Your task to perform on an android device: open a bookmark in the chrome app Image 0: 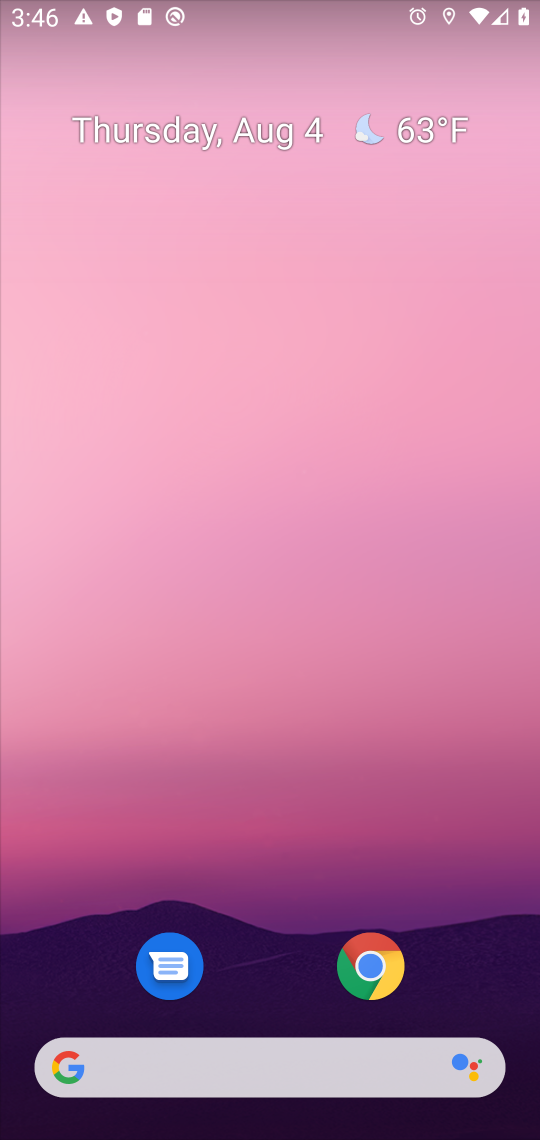
Step 0: click (369, 975)
Your task to perform on an android device: open a bookmark in the chrome app Image 1: 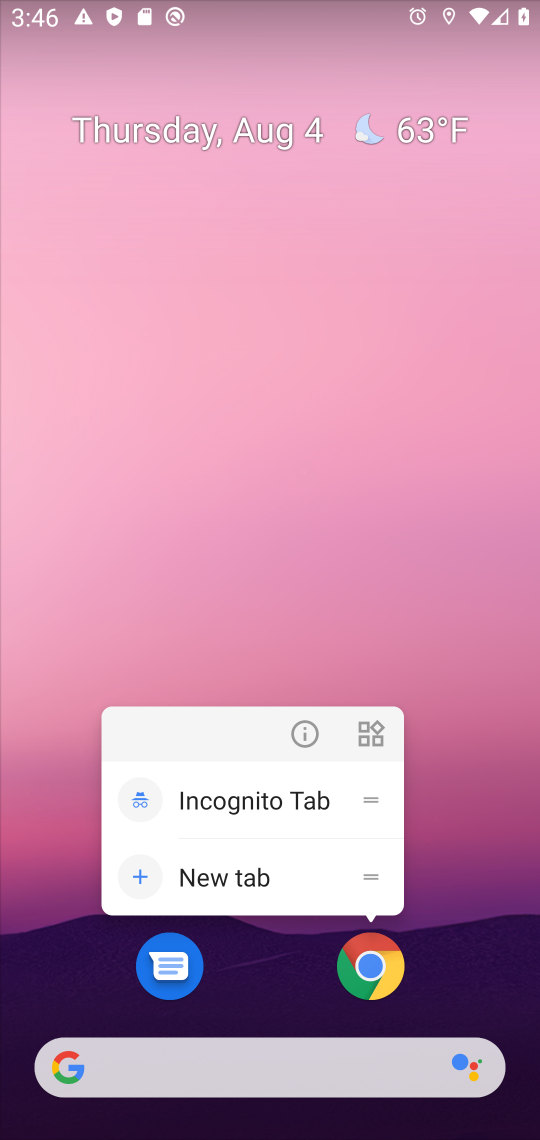
Step 1: click (369, 975)
Your task to perform on an android device: open a bookmark in the chrome app Image 2: 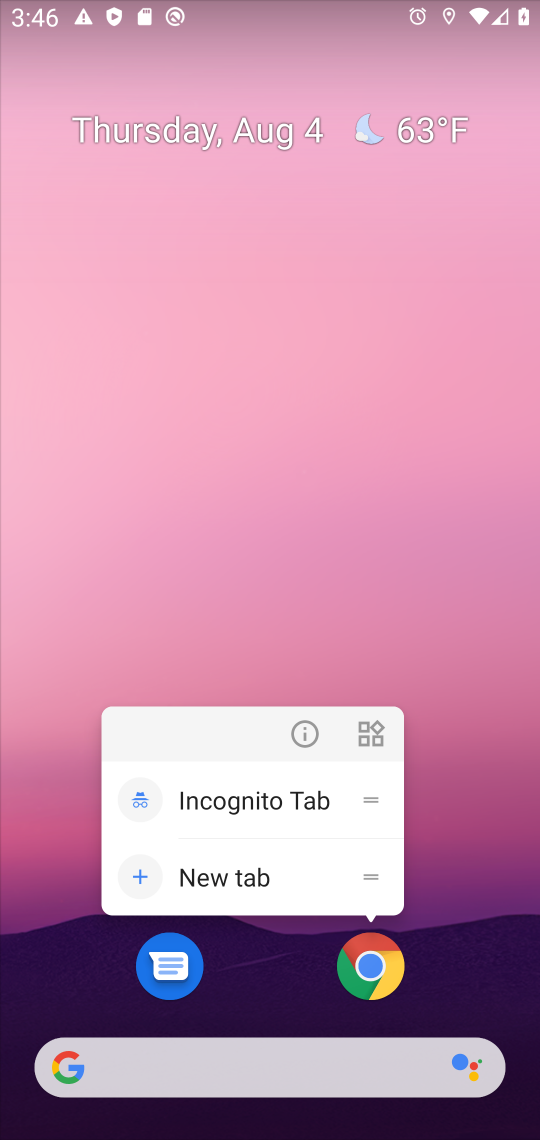
Step 2: click (389, 986)
Your task to perform on an android device: open a bookmark in the chrome app Image 3: 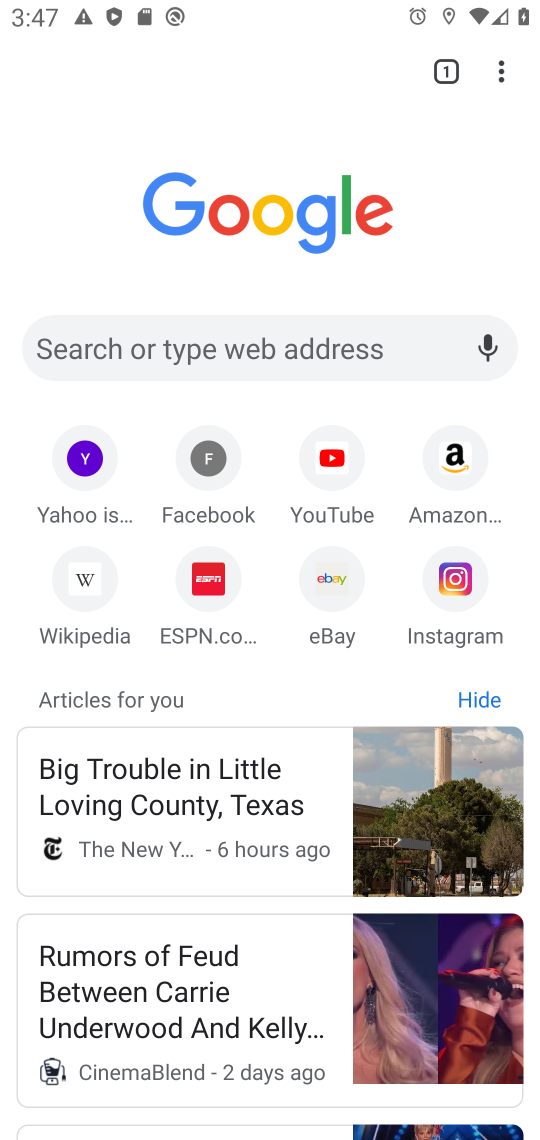
Step 3: drag from (502, 65) to (310, 281)
Your task to perform on an android device: open a bookmark in the chrome app Image 4: 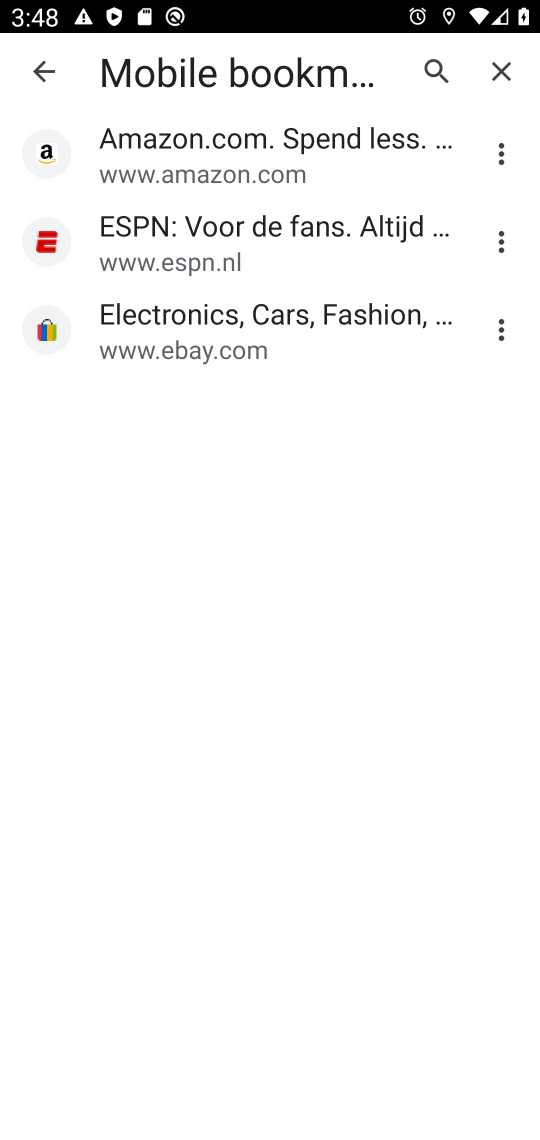
Step 4: click (200, 232)
Your task to perform on an android device: open a bookmark in the chrome app Image 5: 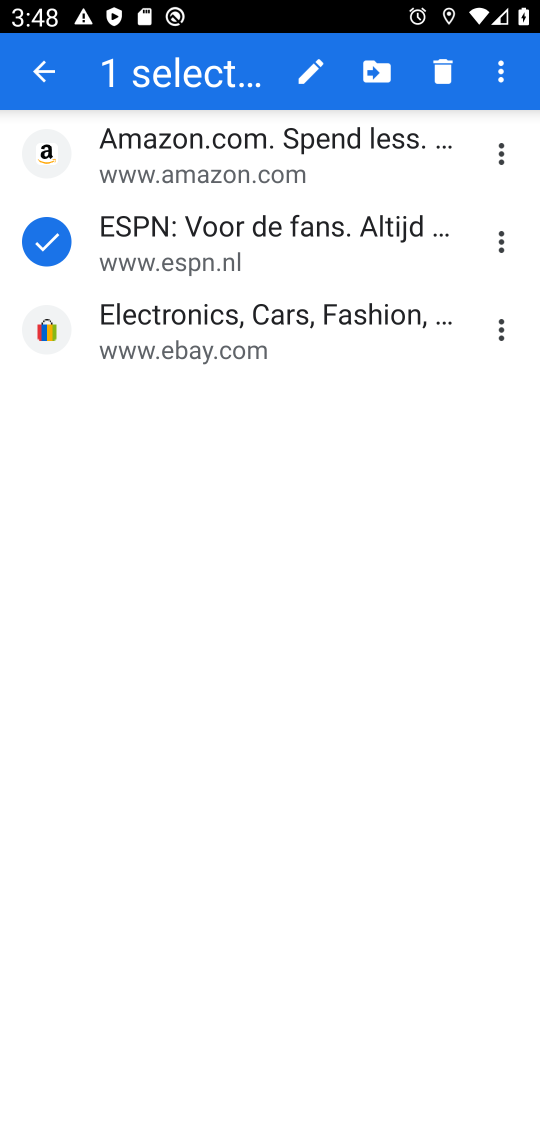
Step 5: click (200, 232)
Your task to perform on an android device: open a bookmark in the chrome app Image 6: 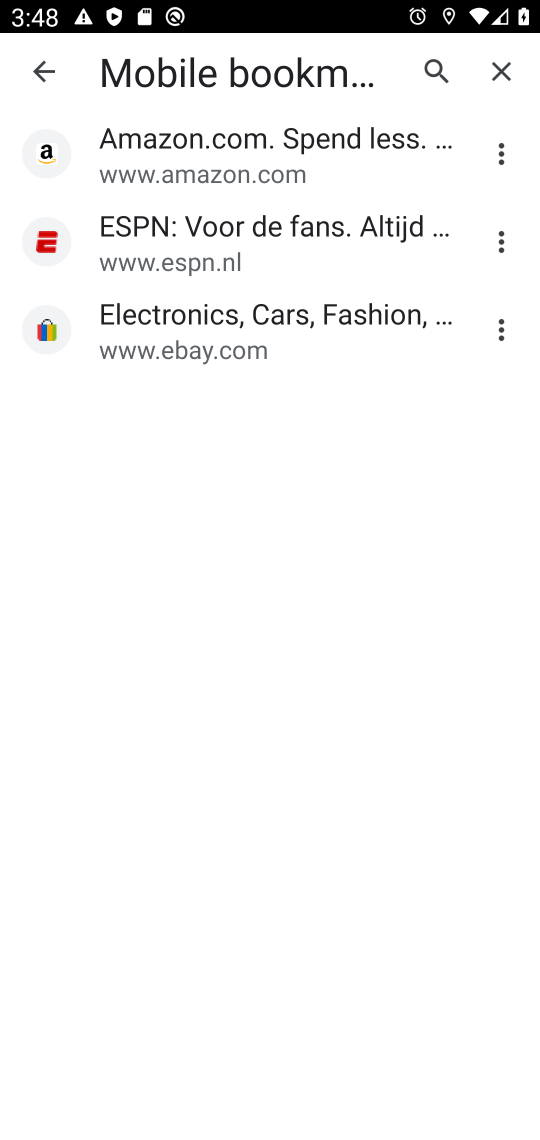
Step 6: click (240, 336)
Your task to perform on an android device: open a bookmark in the chrome app Image 7: 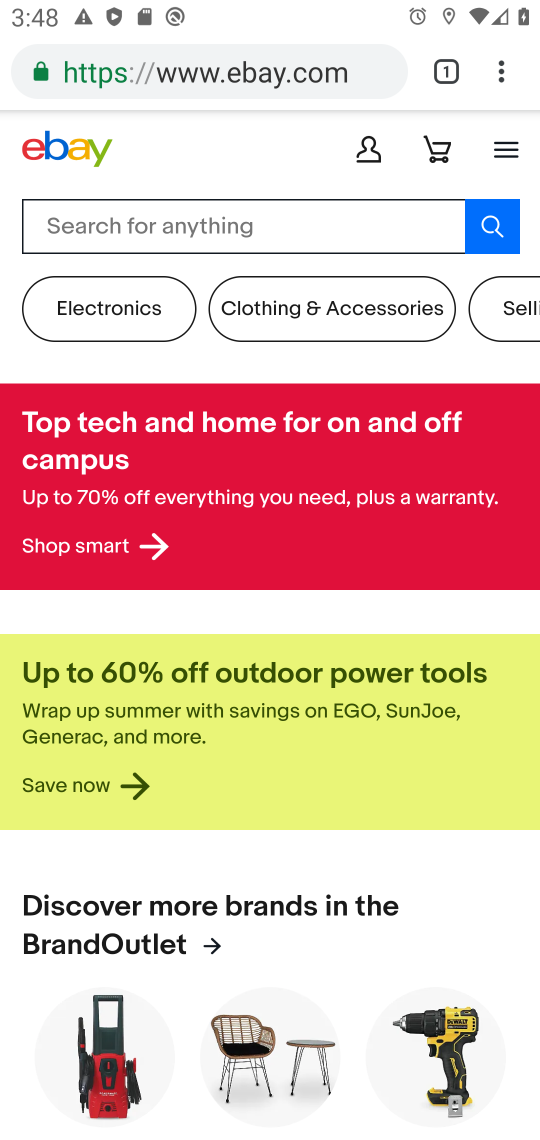
Step 7: task complete